Your task to perform on an android device: change the clock display to analog Image 0: 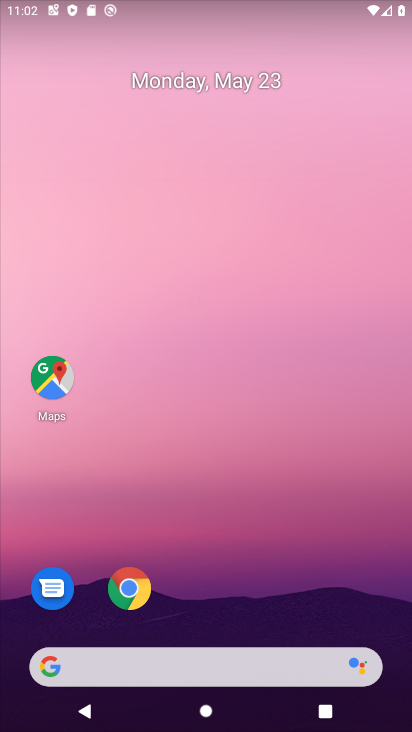
Step 0: drag from (310, 589) to (314, 190)
Your task to perform on an android device: change the clock display to analog Image 1: 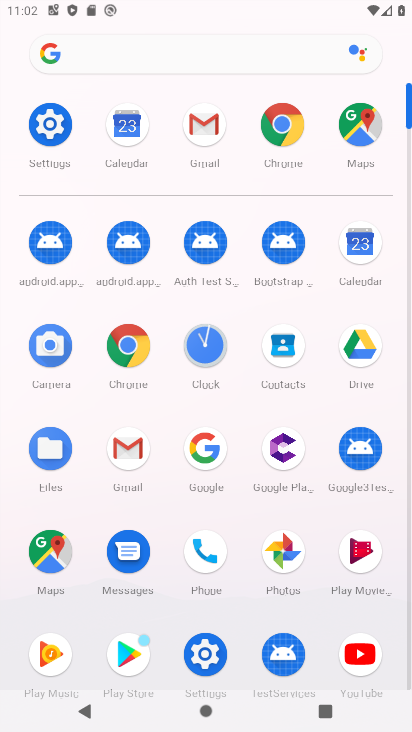
Step 1: click (210, 332)
Your task to perform on an android device: change the clock display to analog Image 2: 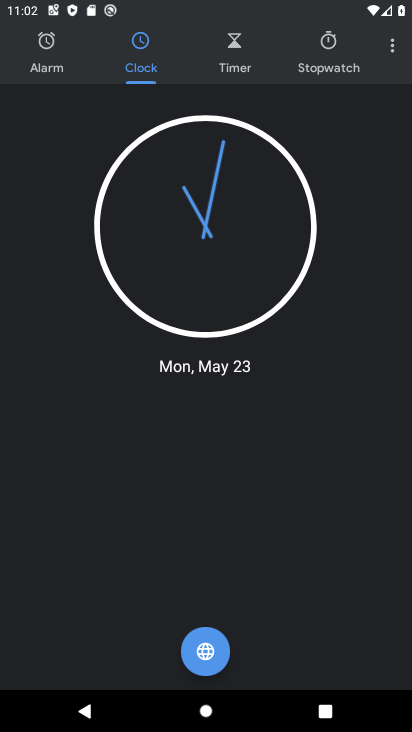
Step 2: click (400, 50)
Your task to perform on an android device: change the clock display to analog Image 3: 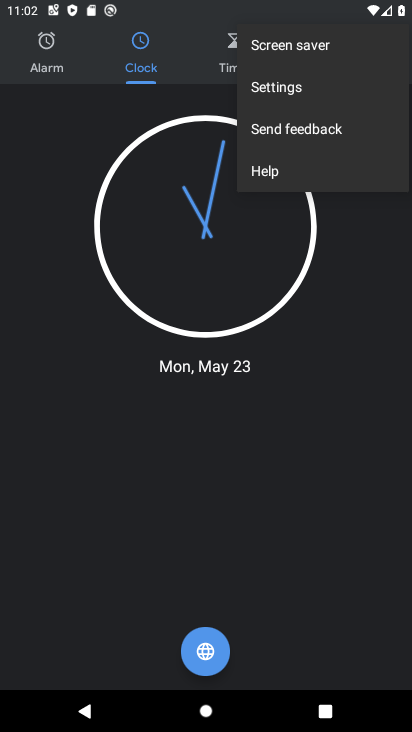
Step 3: click (296, 99)
Your task to perform on an android device: change the clock display to analog Image 4: 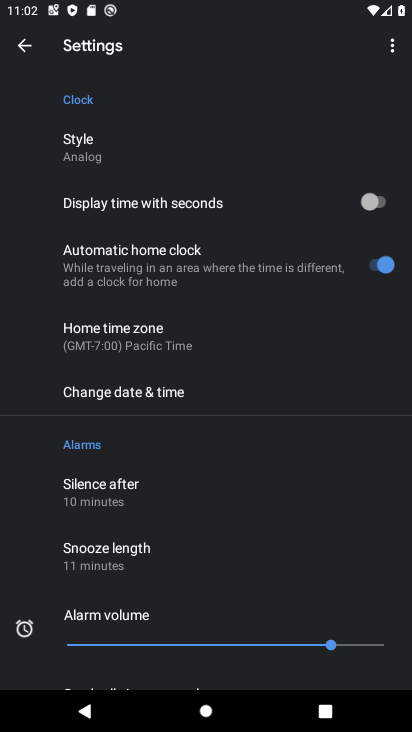
Step 4: click (110, 145)
Your task to perform on an android device: change the clock display to analog Image 5: 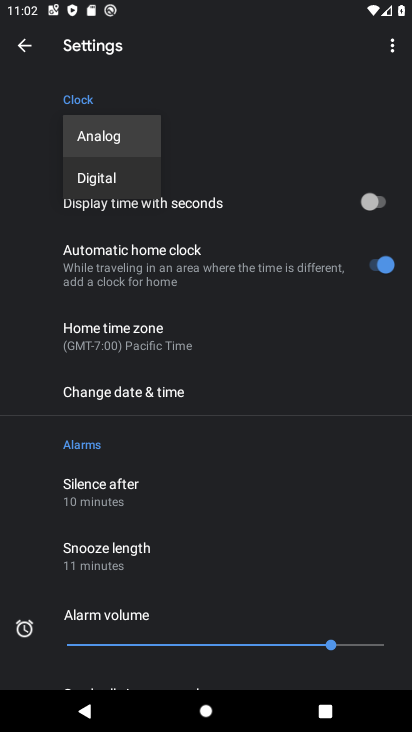
Step 5: click (118, 178)
Your task to perform on an android device: change the clock display to analog Image 6: 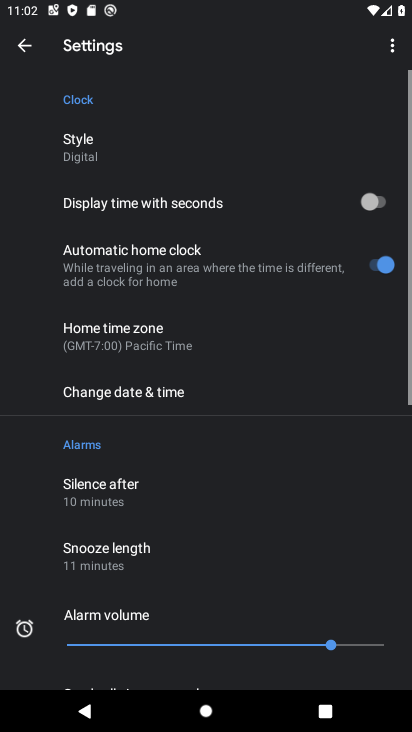
Step 6: task complete